Your task to perform on an android device: Open CNN.com Image 0: 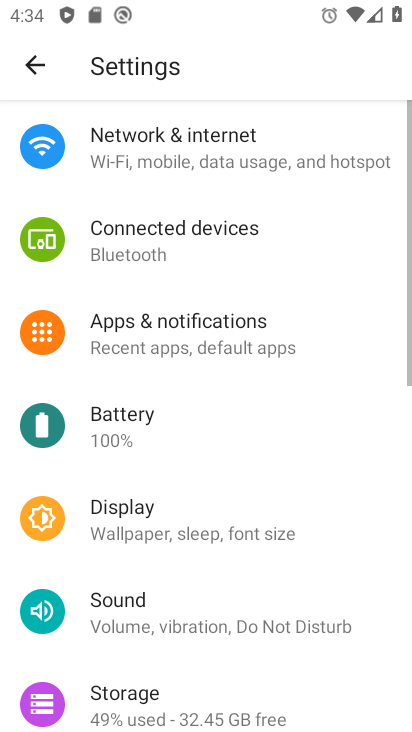
Step 0: press home button
Your task to perform on an android device: Open CNN.com Image 1: 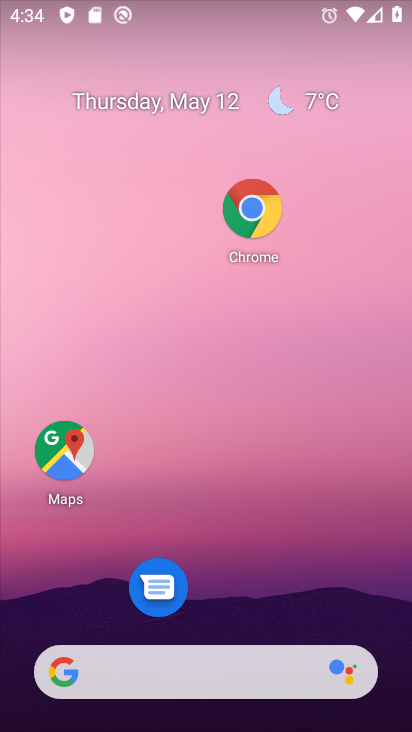
Step 1: click (237, 255)
Your task to perform on an android device: Open CNN.com Image 2: 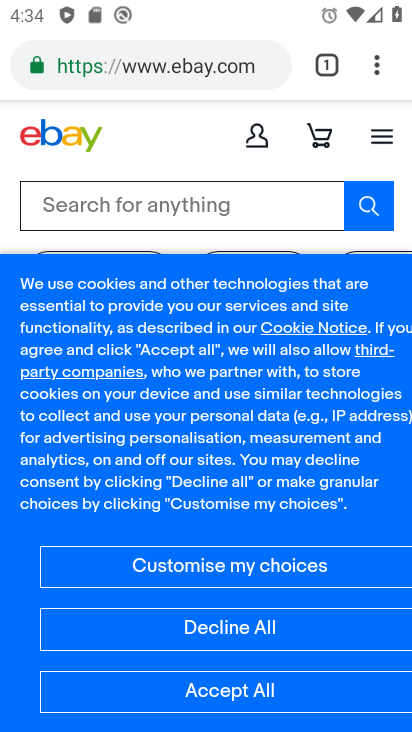
Step 2: click (220, 64)
Your task to perform on an android device: Open CNN.com Image 3: 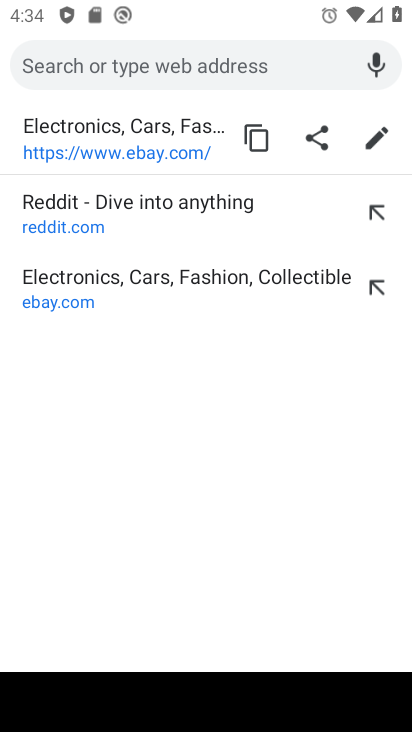
Step 3: type "www.cnn.com"
Your task to perform on an android device: Open CNN.com Image 4: 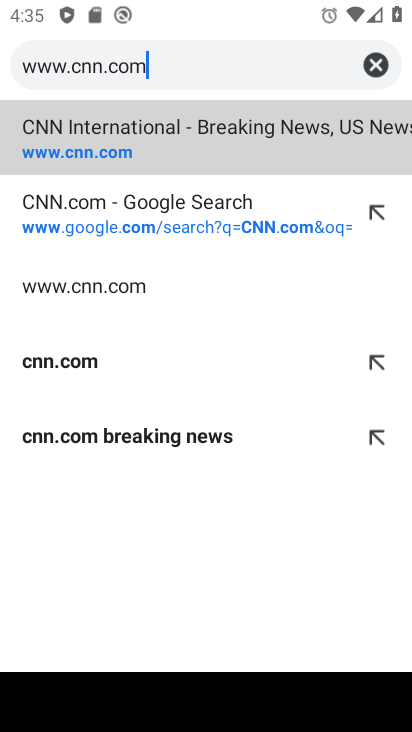
Step 4: click (114, 143)
Your task to perform on an android device: Open CNN.com Image 5: 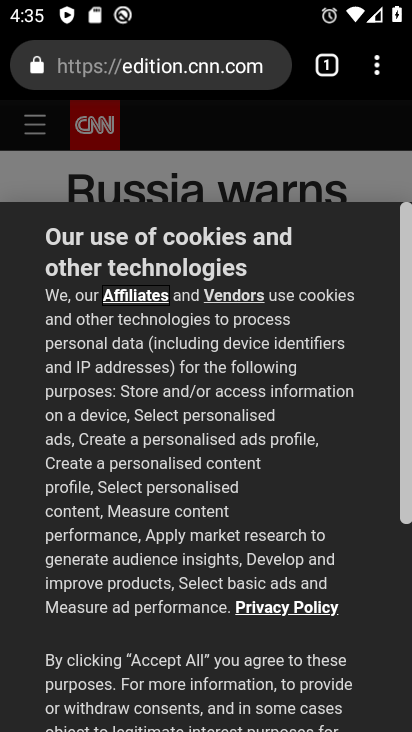
Step 5: task complete